Your task to perform on an android device: Search for pizza restaurants on Maps Image 0: 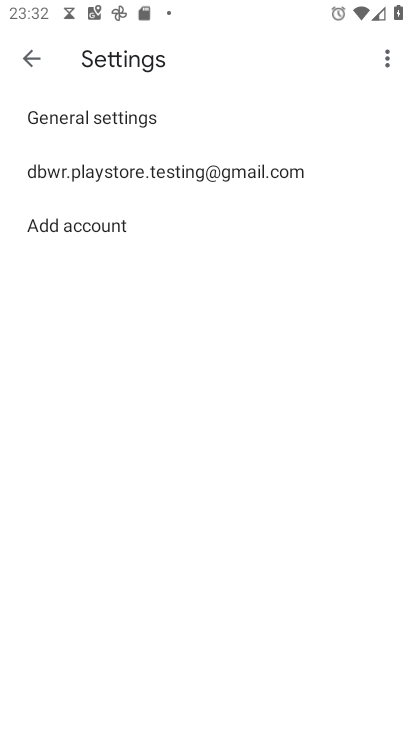
Step 0: press home button
Your task to perform on an android device: Search for pizza restaurants on Maps Image 1: 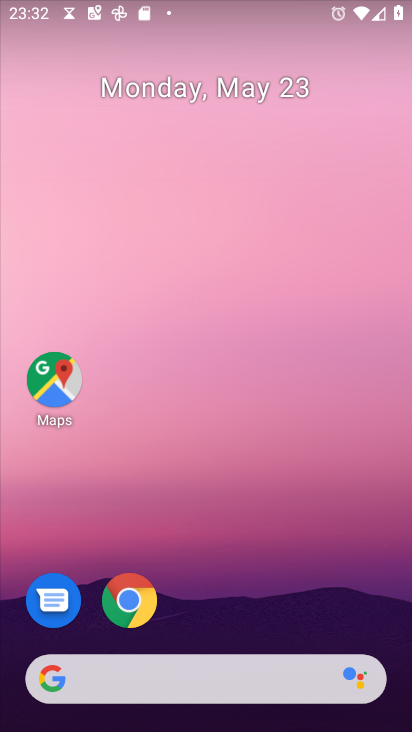
Step 1: drag from (210, 725) to (213, 176)
Your task to perform on an android device: Search for pizza restaurants on Maps Image 2: 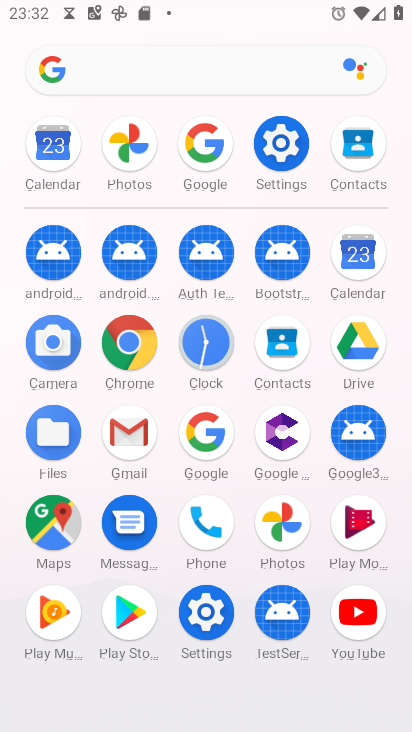
Step 2: click (45, 522)
Your task to perform on an android device: Search for pizza restaurants on Maps Image 3: 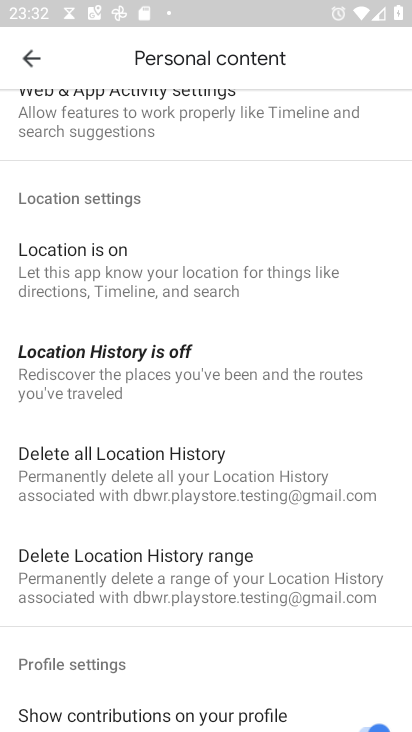
Step 3: click (38, 60)
Your task to perform on an android device: Search for pizza restaurants on Maps Image 4: 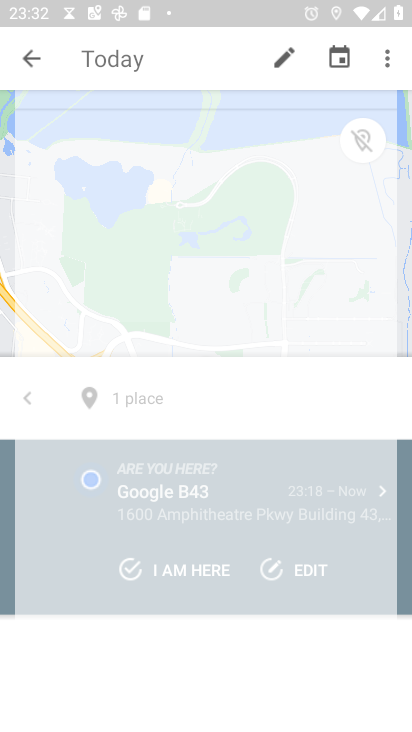
Step 4: click (42, 59)
Your task to perform on an android device: Search for pizza restaurants on Maps Image 5: 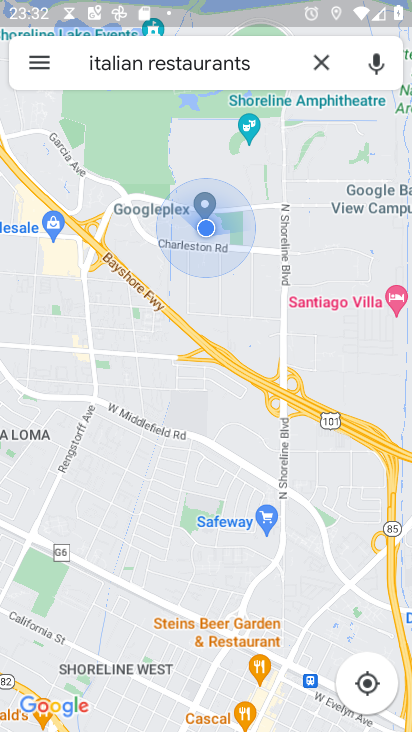
Step 5: click (319, 61)
Your task to perform on an android device: Search for pizza restaurants on Maps Image 6: 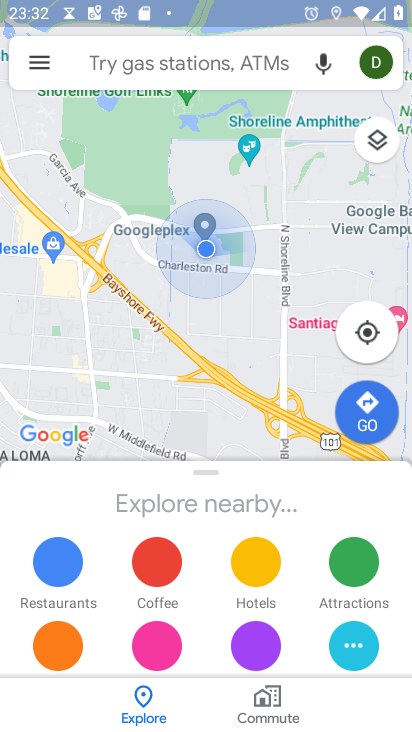
Step 6: click (150, 64)
Your task to perform on an android device: Search for pizza restaurants on Maps Image 7: 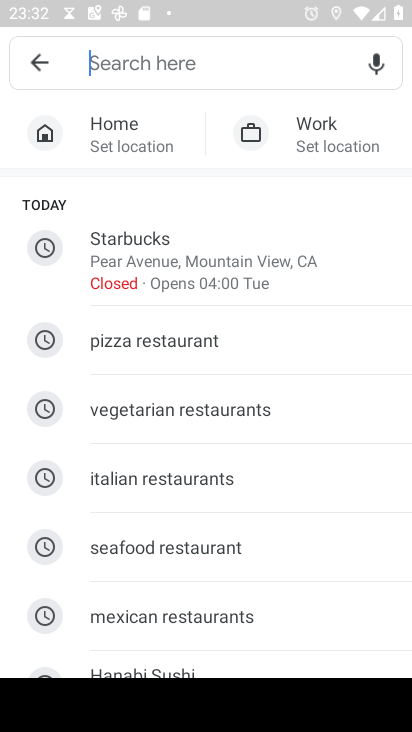
Step 7: type "pizza restaurants"
Your task to perform on an android device: Search for pizza restaurants on Maps Image 8: 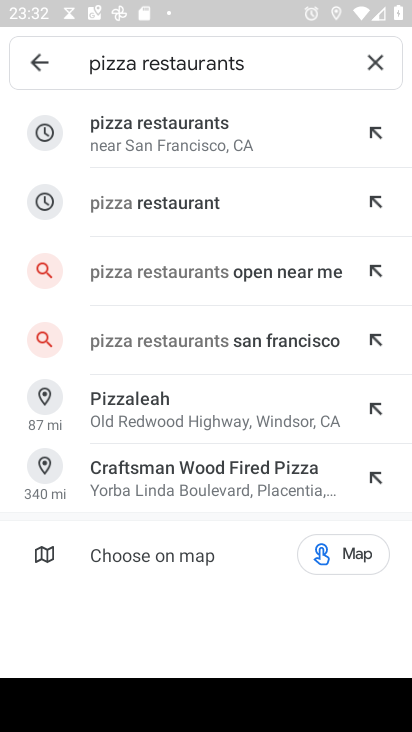
Step 8: click (171, 118)
Your task to perform on an android device: Search for pizza restaurants on Maps Image 9: 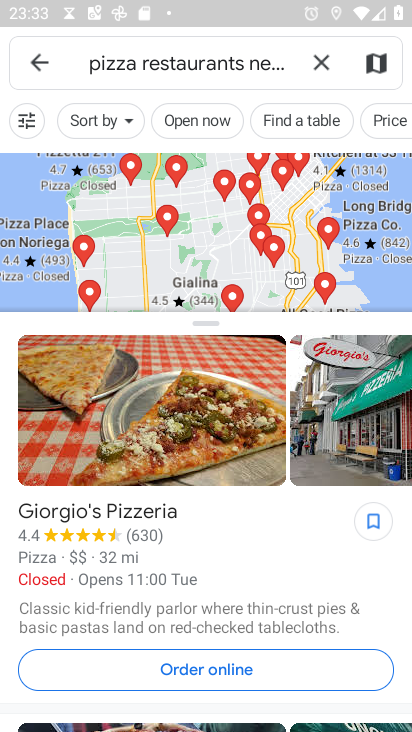
Step 9: task complete